Your task to perform on an android device: Turn on the flashlight Image 0: 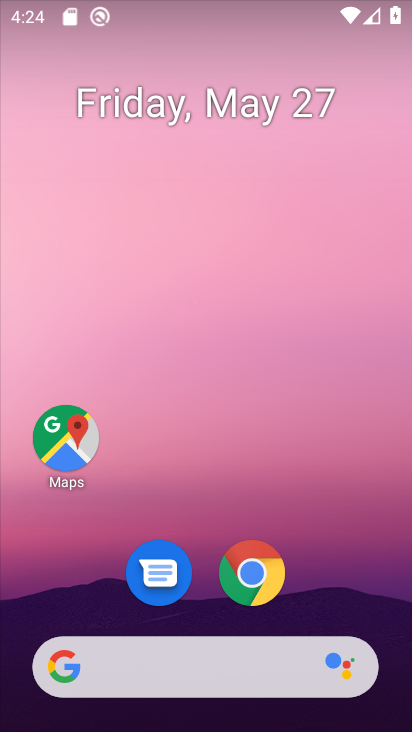
Step 0: drag from (238, 491) to (305, 50)
Your task to perform on an android device: Turn on the flashlight Image 1: 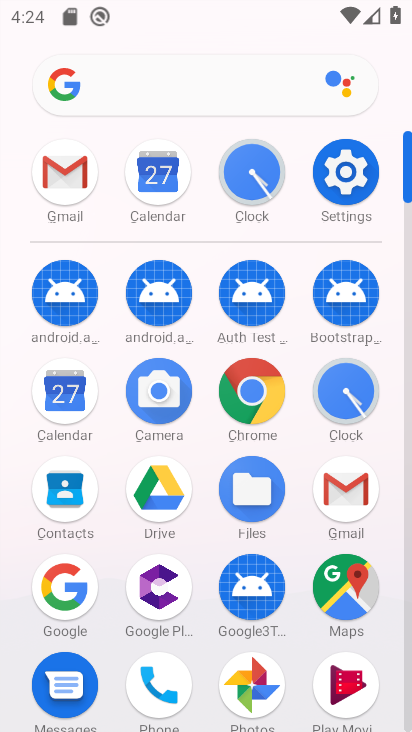
Step 1: click (350, 173)
Your task to perform on an android device: Turn on the flashlight Image 2: 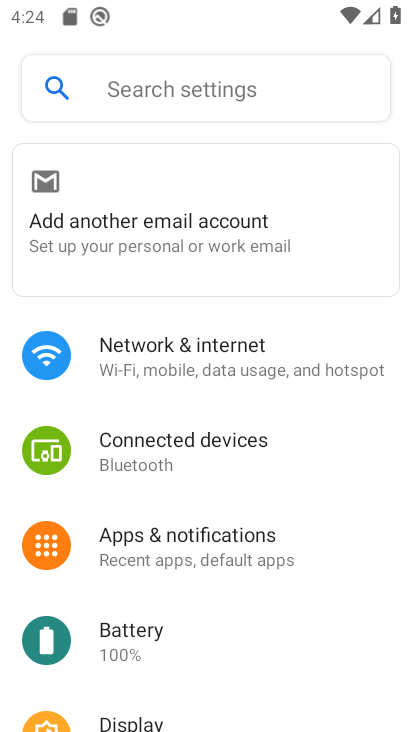
Step 2: click (316, 90)
Your task to perform on an android device: Turn on the flashlight Image 3: 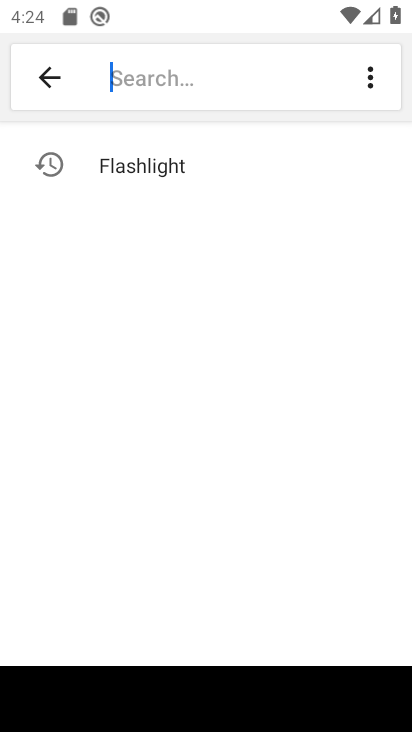
Step 3: click (150, 159)
Your task to perform on an android device: Turn on the flashlight Image 4: 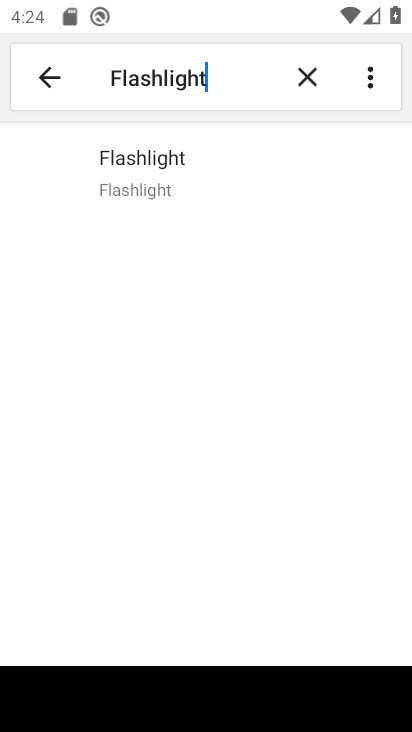
Step 4: click (150, 162)
Your task to perform on an android device: Turn on the flashlight Image 5: 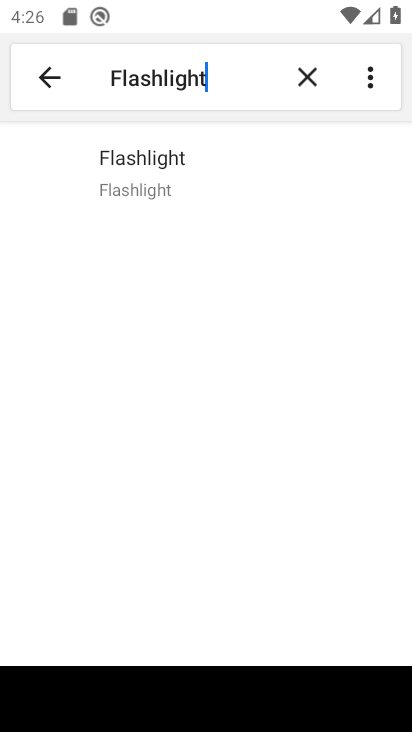
Step 5: task complete